Your task to perform on an android device: find snoozed emails in the gmail app Image 0: 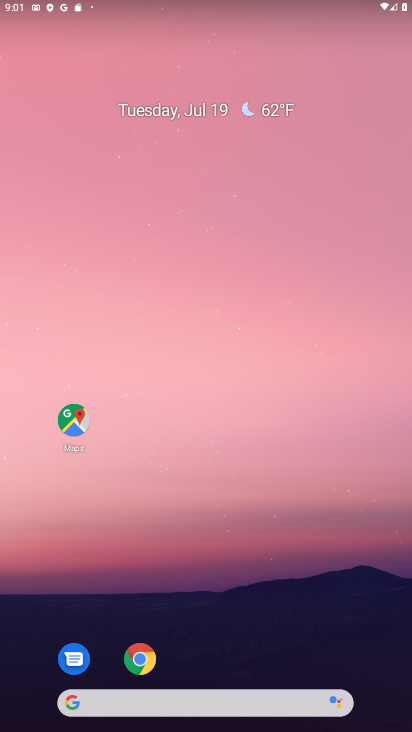
Step 0: press home button
Your task to perform on an android device: find snoozed emails in the gmail app Image 1: 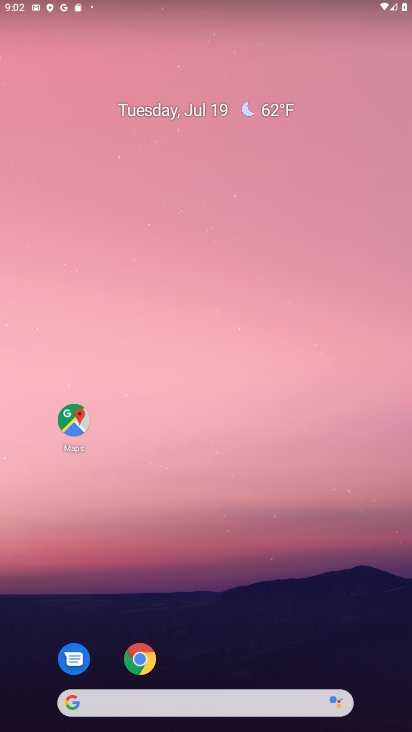
Step 1: drag from (307, 600) to (339, 34)
Your task to perform on an android device: find snoozed emails in the gmail app Image 2: 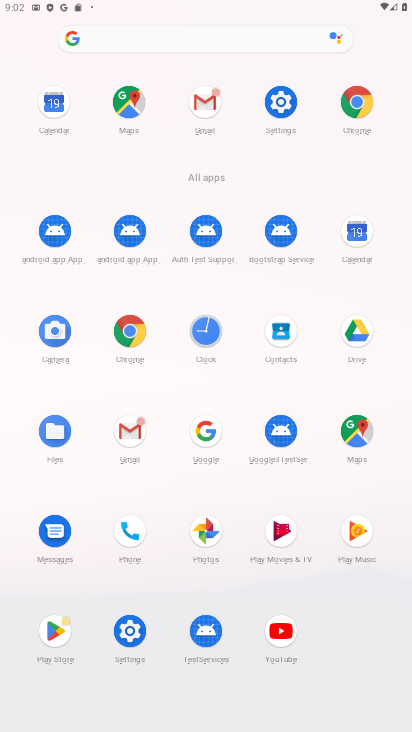
Step 2: click (143, 443)
Your task to perform on an android device: find snoozed emails in the gmail app Image 3: 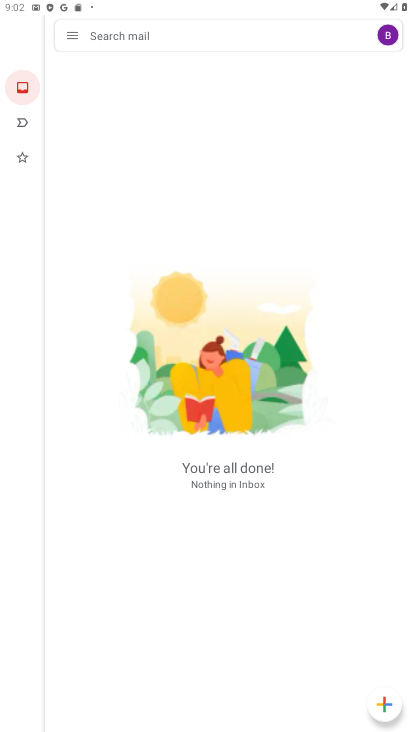
Step 3: click (77, 38)
Your task to perform on an android device: find snoozed emails in the gmail app Image 4: 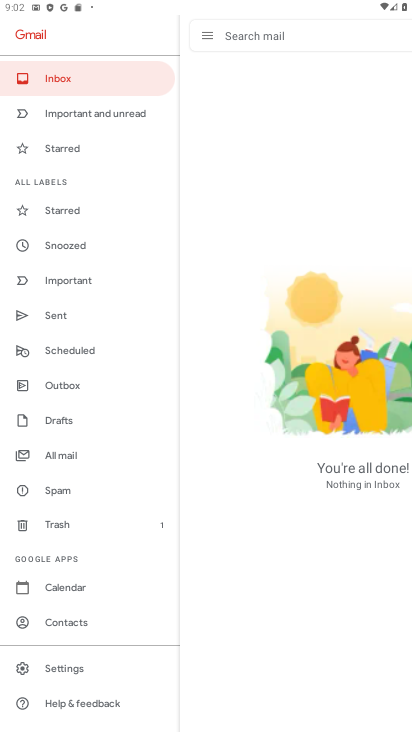
Step 4: click (64, 249)
Your task to perform on an android device: find snoozed emails in the gmail app Image 5: 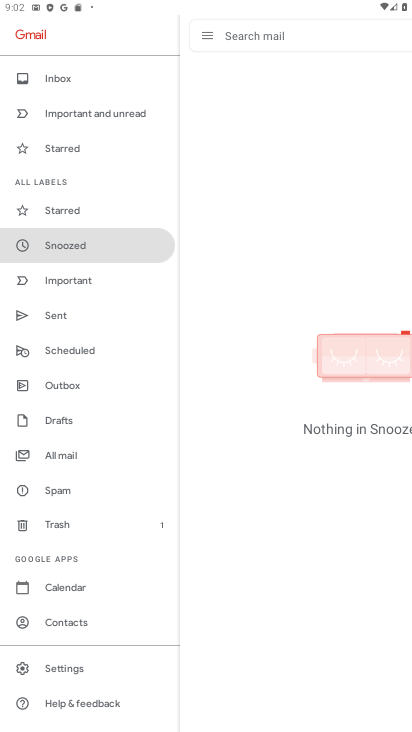
Step 5: task complete